Your task to perform on an android device: Open Yahoo.com Image 0: 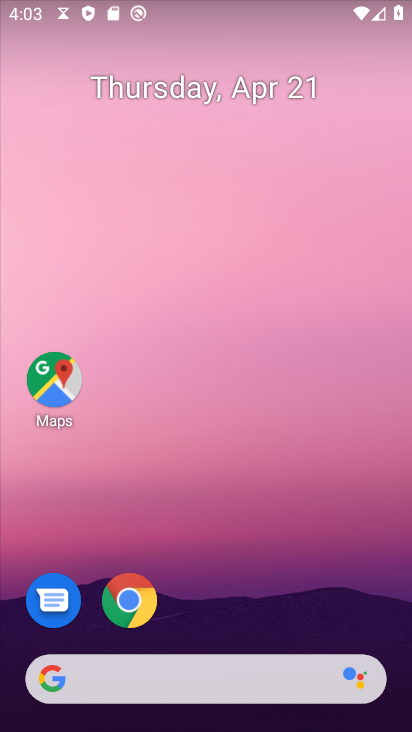
Step 0: drag from (214, 585) to (220, 52)
Your task to perform on an android device: Open Yahoo.com Image 1: 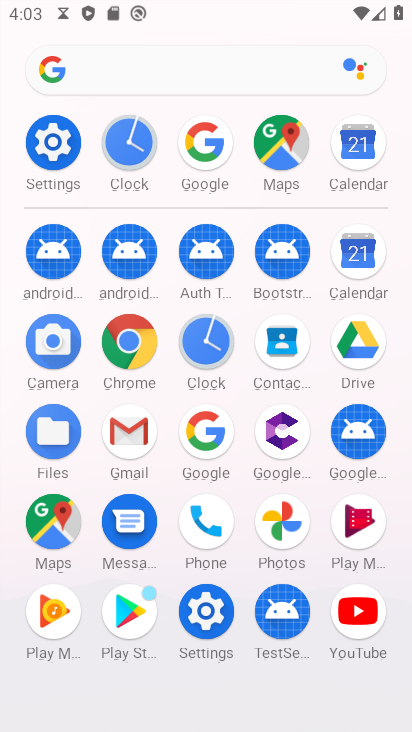
Step 1: click (135, 344)
Your task to perform on an android device: Open Yahoo.com Image 2: 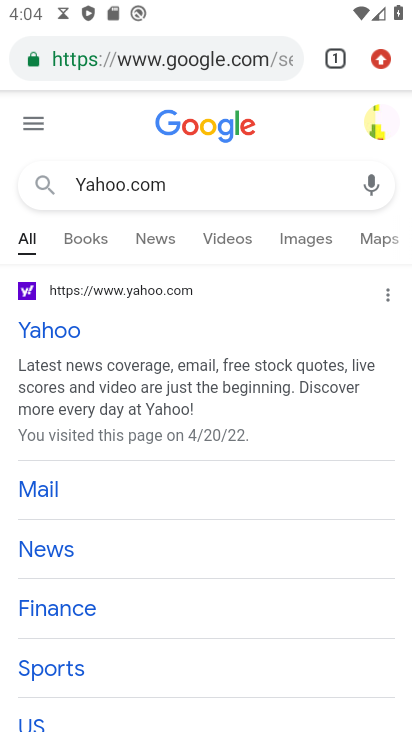
Step 2: task complete